Your task to perform on an android device: turn off wifi Image 0: 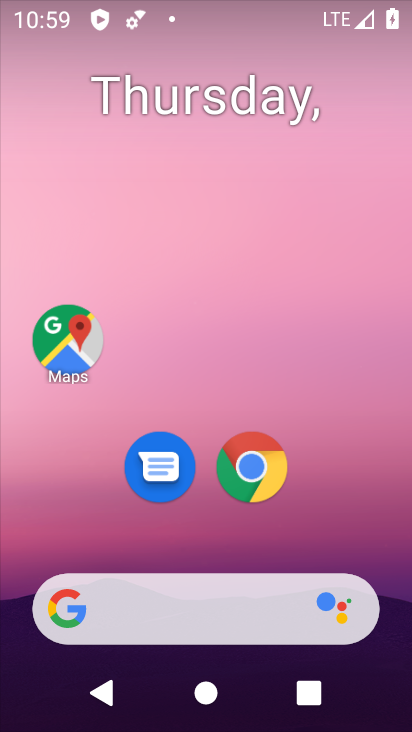
Step 0: drag from (136, 8) to (273, 97)
Your task to perform on an android device: turn off wifi Image 1: 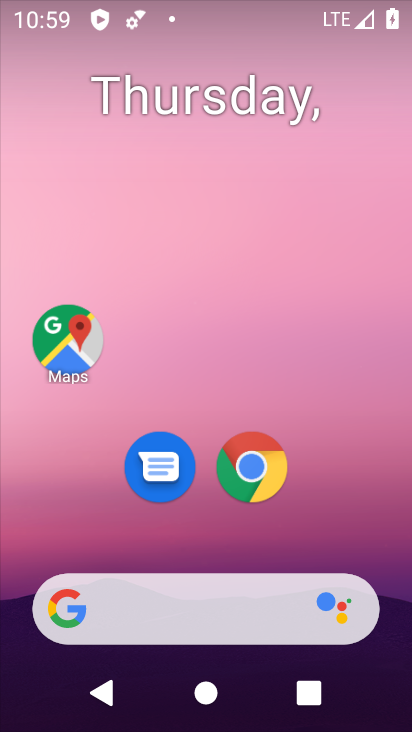
Step 1: task complete